Your task to perform on an android device: turn off priority inbox in the gmail app Image 0: 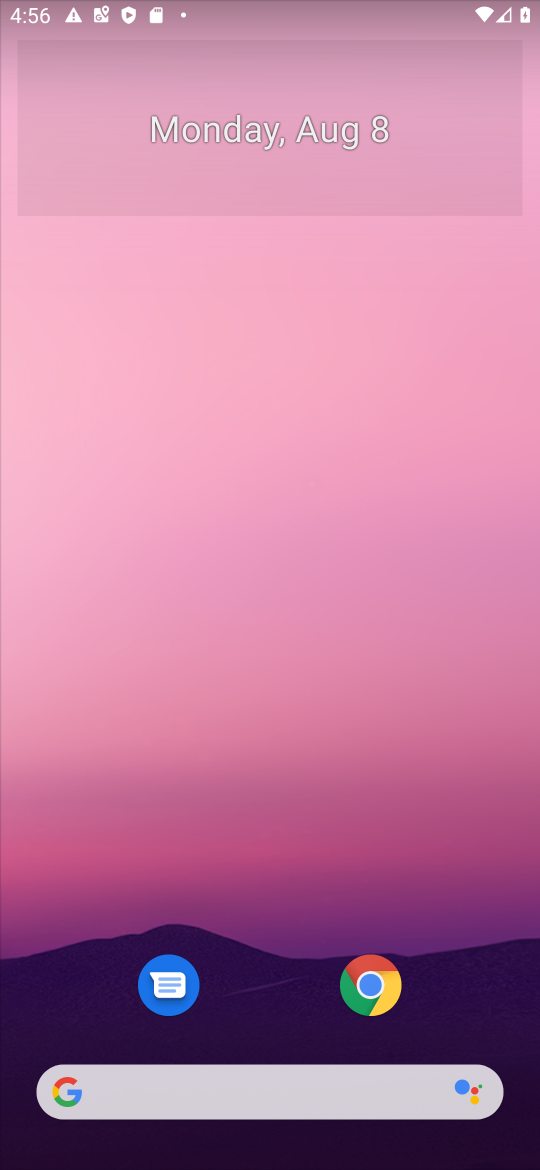
Step 0: drag from (347, 906) to (406, 473)
Your task to perform on an android device: turn off priority inbox in the gmail app Image 1: 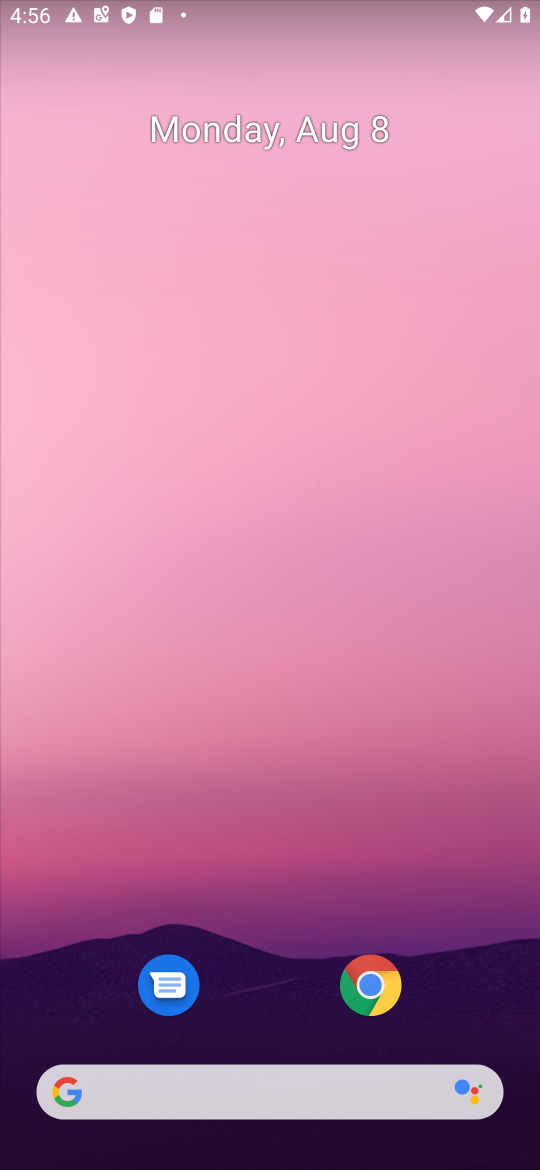
Step 1: drag from (296, 750) to (325, 113)
Your task to perform on an android device: turn off priority inbox in the gmail app Image 2: 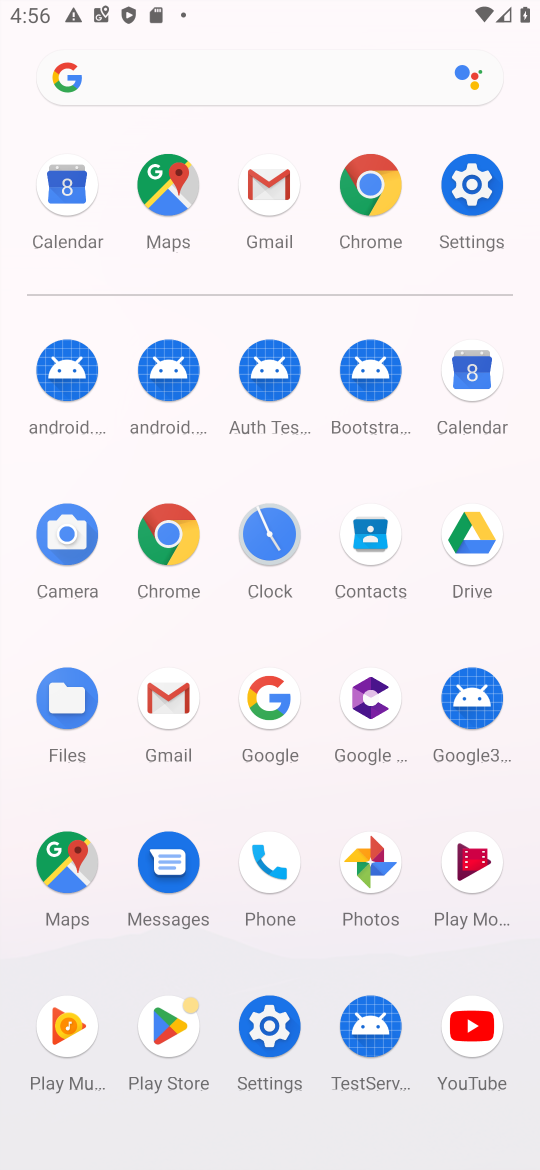
Step 2: click (160, 706)
Your task to perform on an android device: turn off priority inbox in the gmail app Image 3: 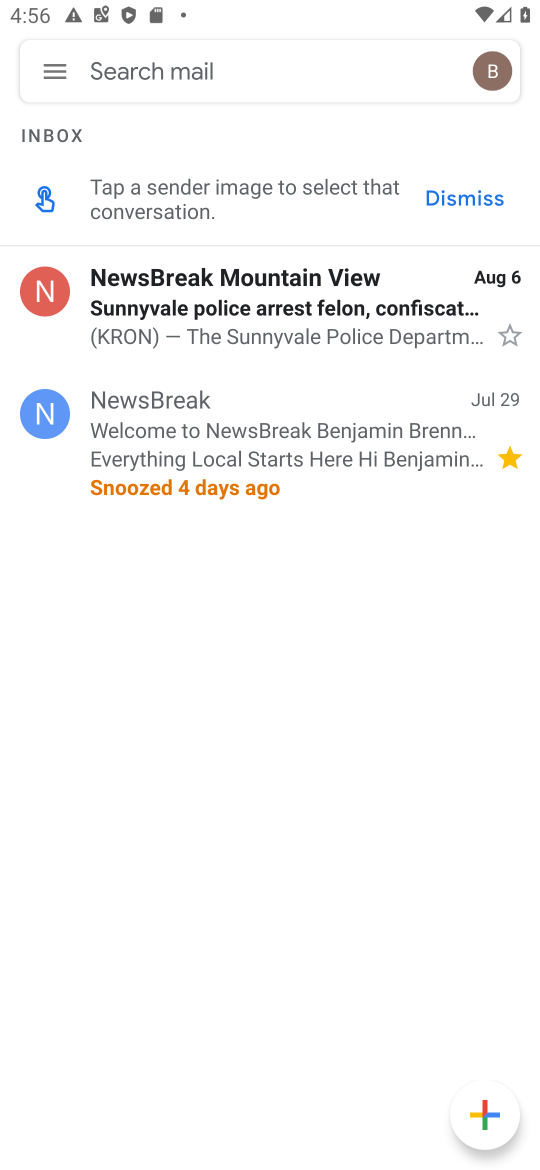
Step 3: task complete